Your task to perform on an android device: Open calendar and show me the second week of next month Image 0: 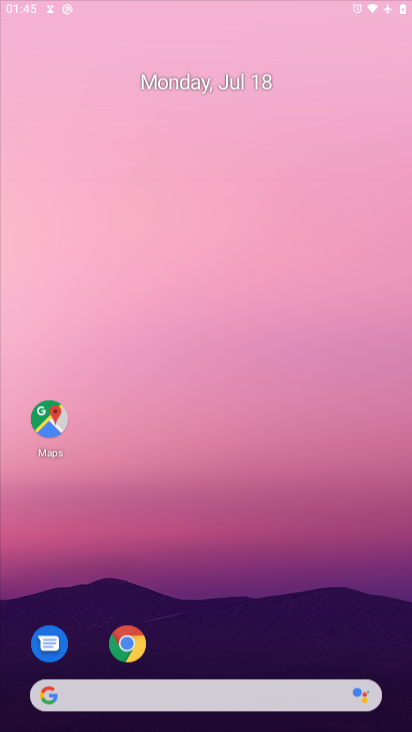
Step 0: press home button
Your task to perform on an android device: Open calendar and show me the second week of next month Image 1: 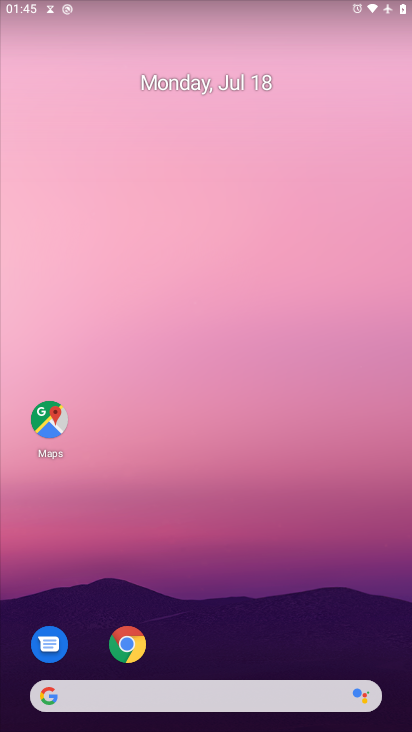
Step 1: drag from (239, 648) to (269, 207)
Your task to perform on an android device: Open calendar and show me the second week of next month Image 2: 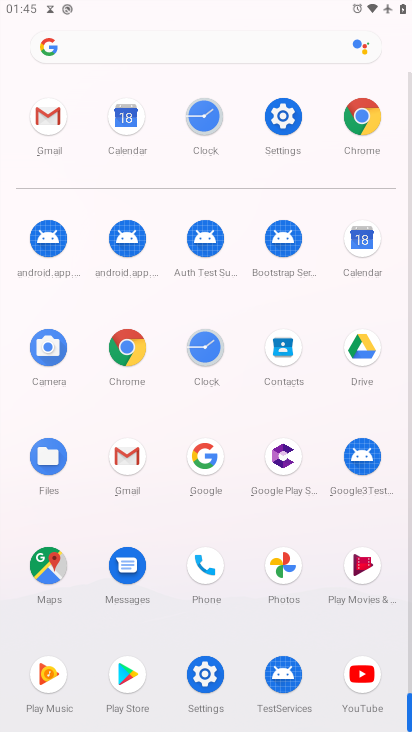
Step 2: click (364, 248)
Your task to perform on an android device: Open calendar and show me the second week of next month Image 3: 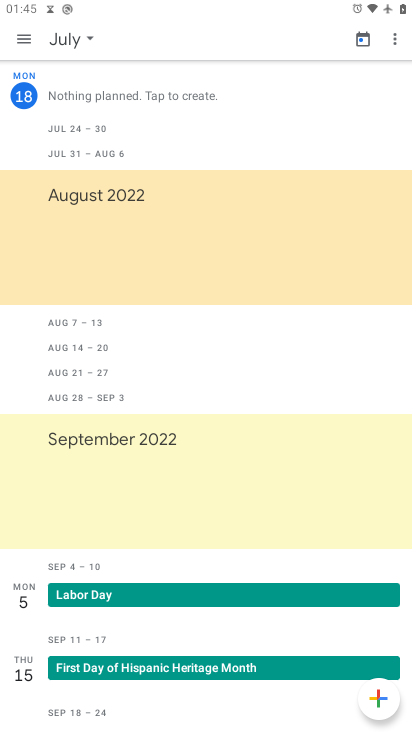
Step 3: click (90, 37)
Your task to perform on an android device: Open calendar and show me the second week of next month Image 4: 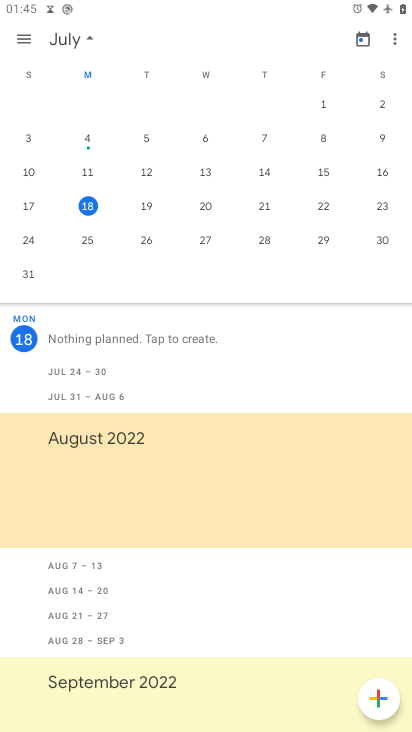
Step 4: drag from (324, 194) to (19, 163)
Your task to perform on an android device: Open calendar and show me the second week of next month Image 5: 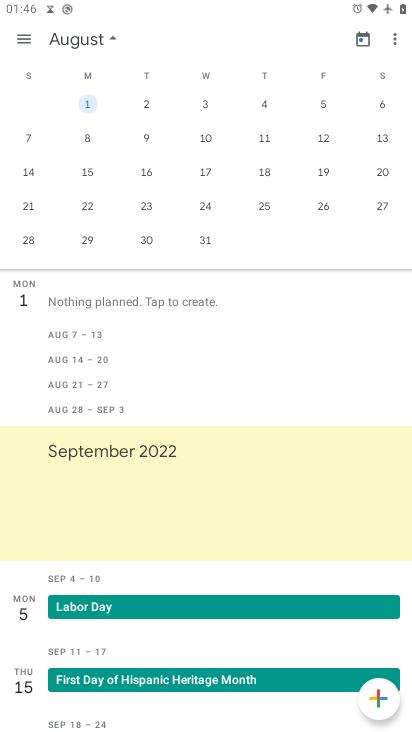
Step 5: click (89, 138)
Your task to perform on an android device: Open calendar and show me the second week of next month Image 6: 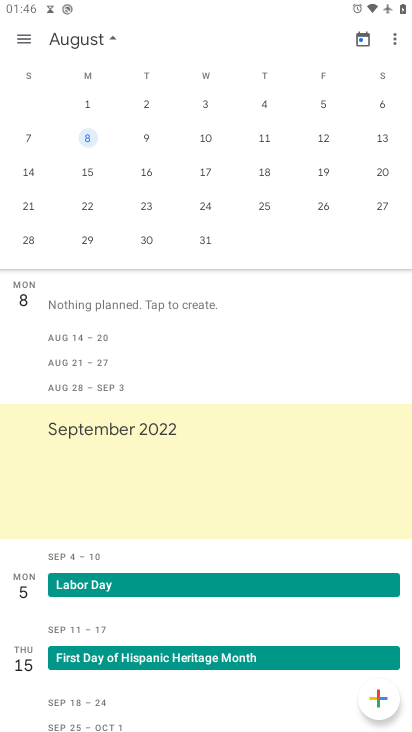
Step 6: click (150, 134)
Your task to perform on an android device: Open calendar and show me the second week of next month Image 7: 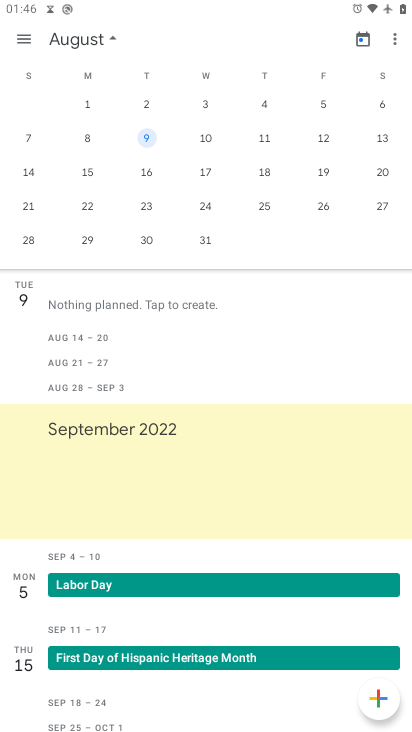
Step 7: click (211, 144)
Your task to perform on an android device: Open calendar and show me the second week of next month Image 8: 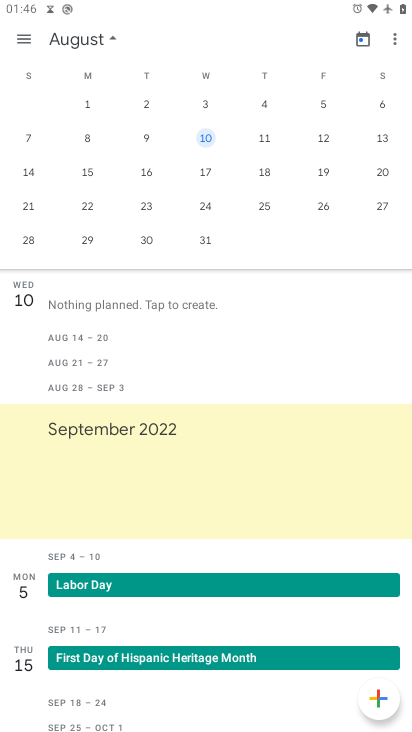
Step 8: click (265, 144)
Your task to perform on an android device: Open calendar and show me the second week of next month Image 9: 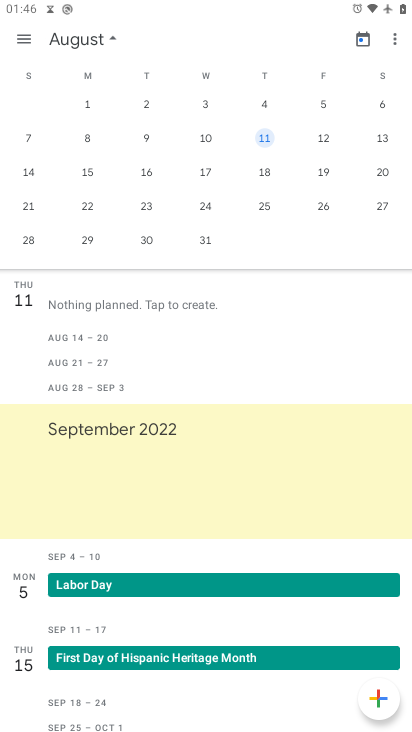
Step 9: click (327, 141)
Your task to perform on an android device: Open calendar and show me the second week of next month Image 10: 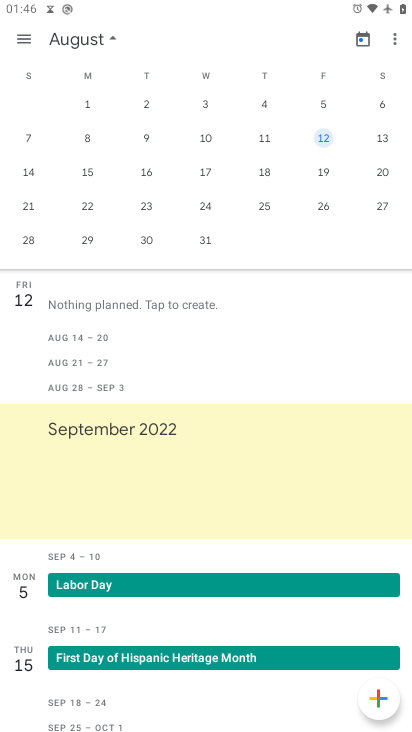
Step 10: click (384, 142)
Your task to perform on an android device: Open calendar and show me the second week of next month Image 11: 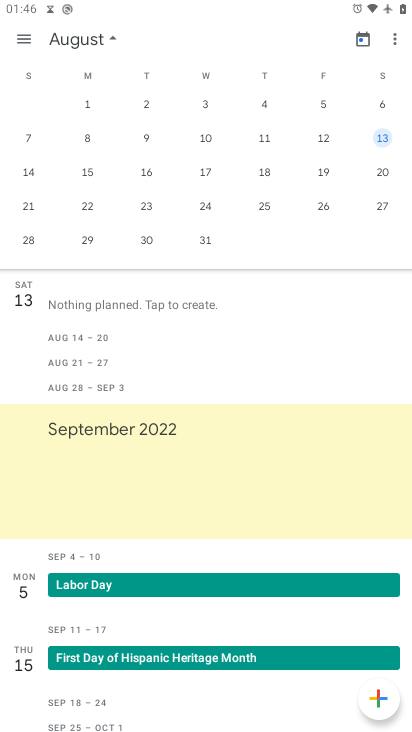
Step 11: click (33, 170)
Your task to perform on an android device: Open calendar and show me the second week of next month Image 12: 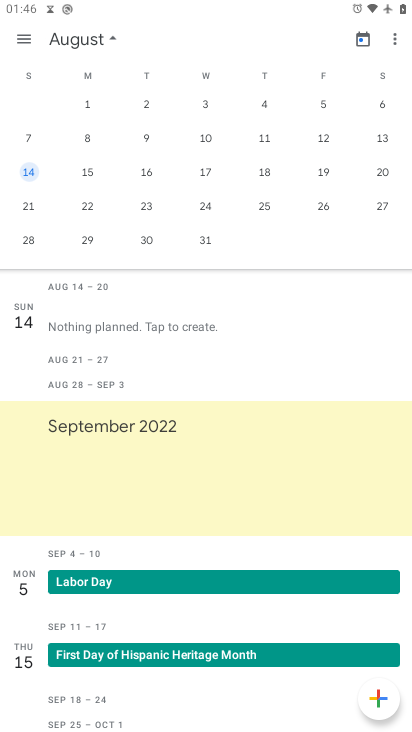
Step 12: task complete